Your task to perform on an android device: Go to Android settings Image 0: 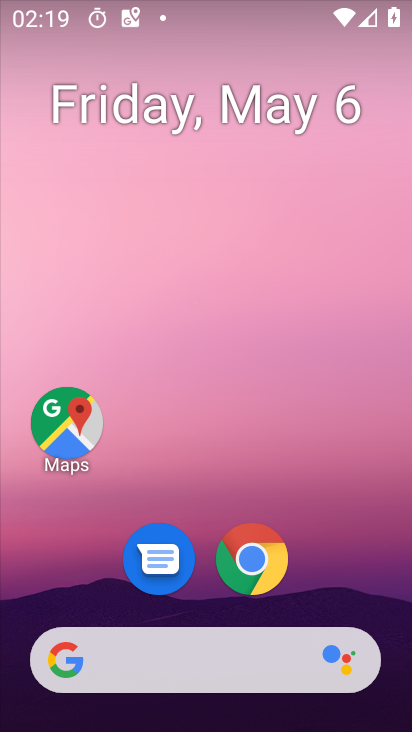
Step 0: drag from (364, 620) to (259, 0)
Your task to perform on an android device: Go to Android settings Image 1: 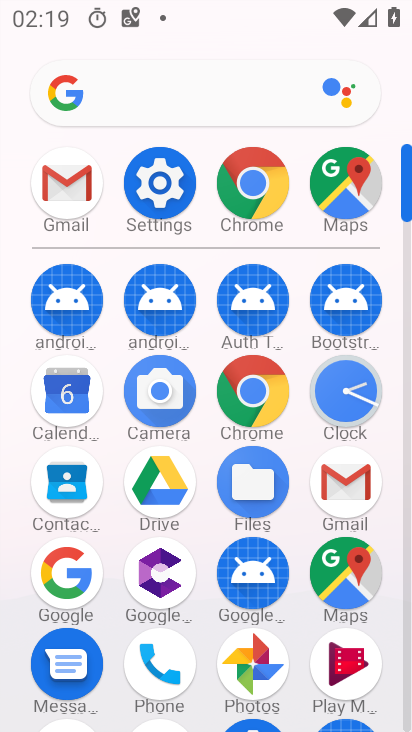
Step 1: drag from (296, 674) to (278, 248)
Your task to perform on an android device: Go to Android settings Image 2: 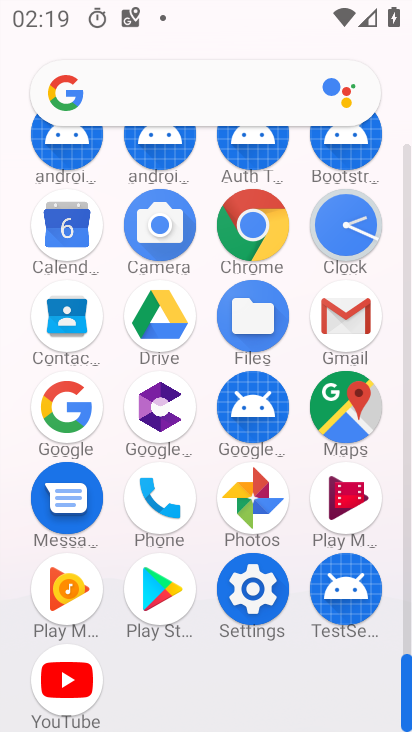
Step 2: click (252, 583)
Your task to perform on an android device: Go to Android settings Image 3: 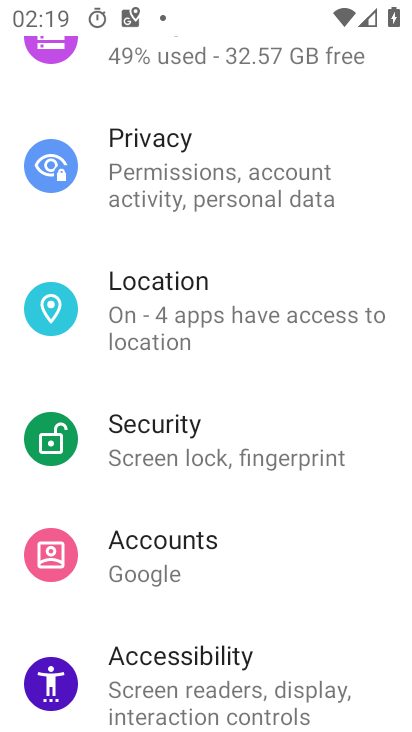
Step 3: drag from (307, 643) to (276, 31)
Your task to perform on an android device: Go to Android settings Image 4: 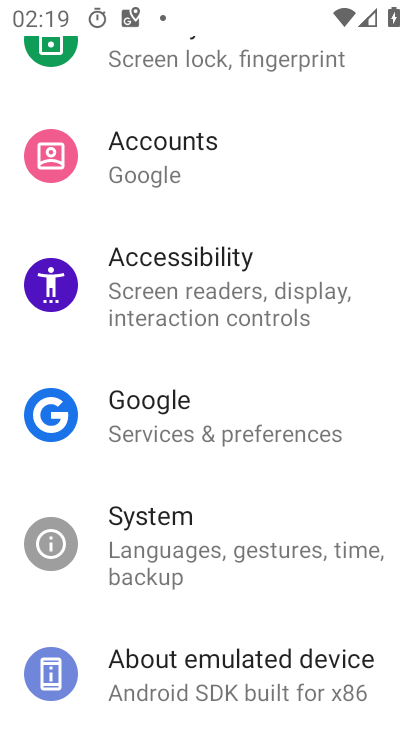
Step 4: click (243, 676)
Your task to perform on an android device: Go to Android settings Image 5: 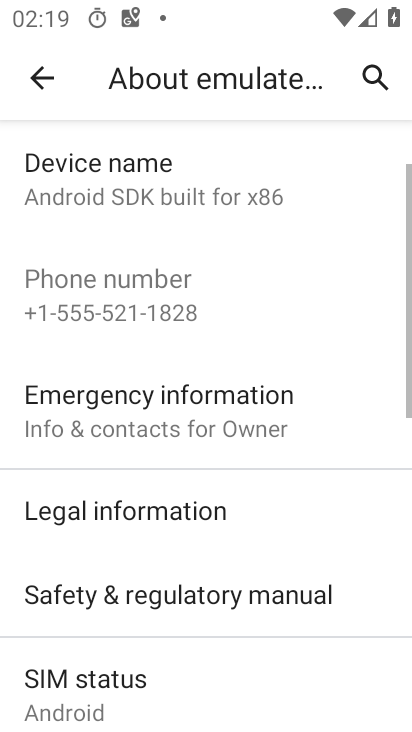
Step 5: drag from (232, 664) to (236, 56)
Your task to perform on an android device: Go to Android settings Image 6: 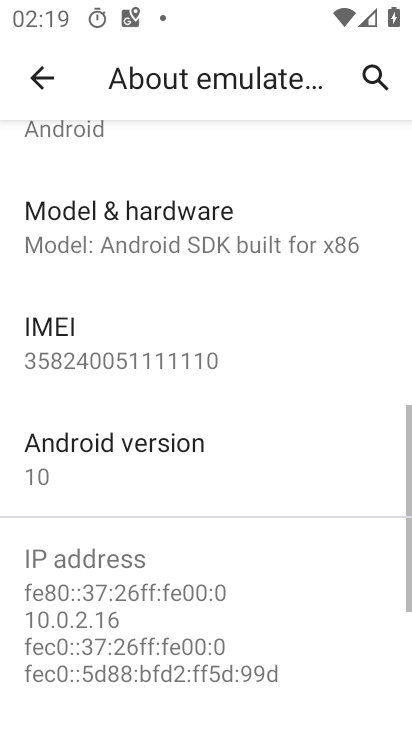
Step 6: click (178, 463)
Your task to perform on an android device: Go to Android settings Image 7: 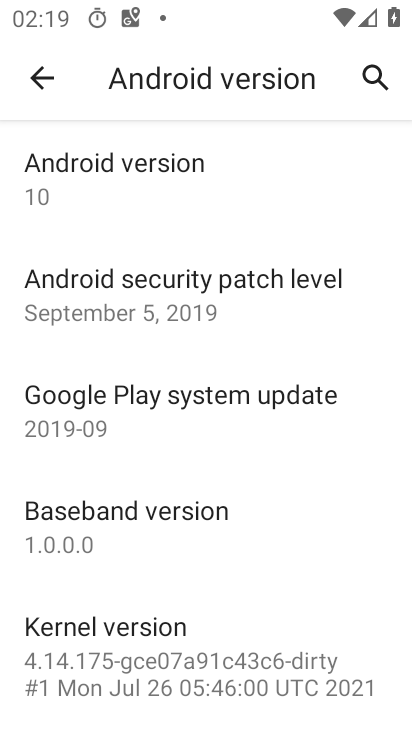
Step 7: task complete